Your task to perform on an android device: Search for coffee table on Crate & Barrel Image 0: 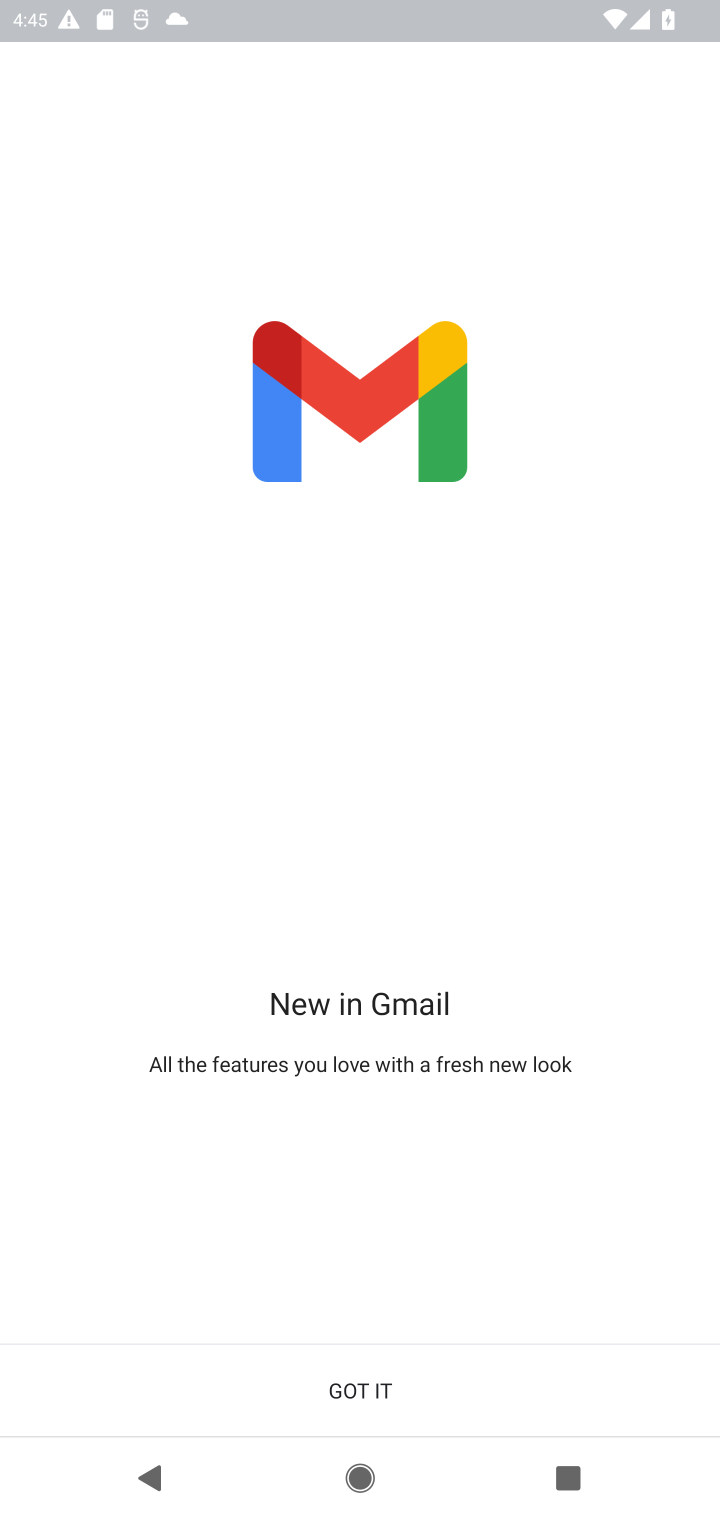
Step 0: press home button
Your task to perform on an android device: Search for coffee table on Crate & Barrel Image 1: 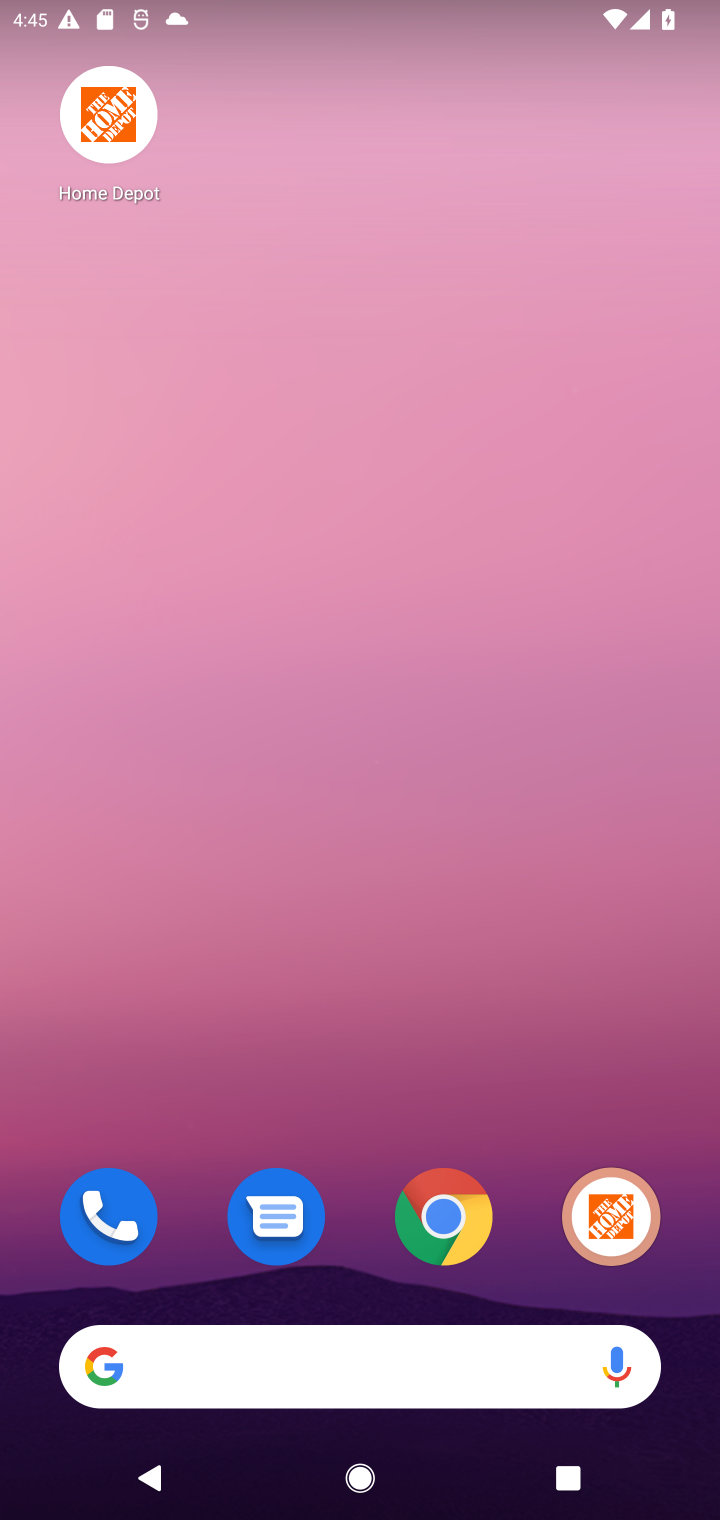
Step 1: click (102, 1361)
Your task to perform on an android device: Search for coffee table on Crate & Barrel Image 2: 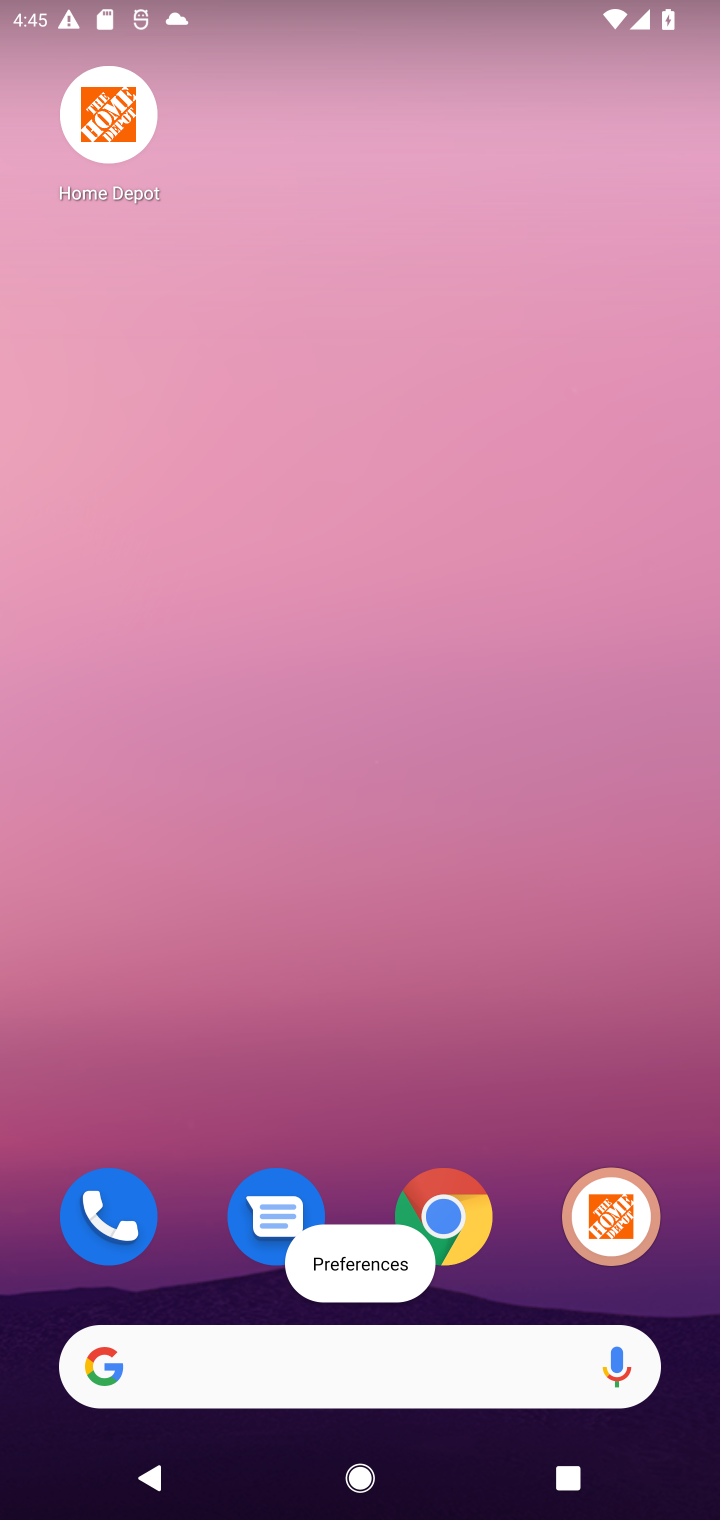
Step 2: click (102, 1361)
Your task to perform on an android device: Search for coffee table on Crate & Barrel Image 3: 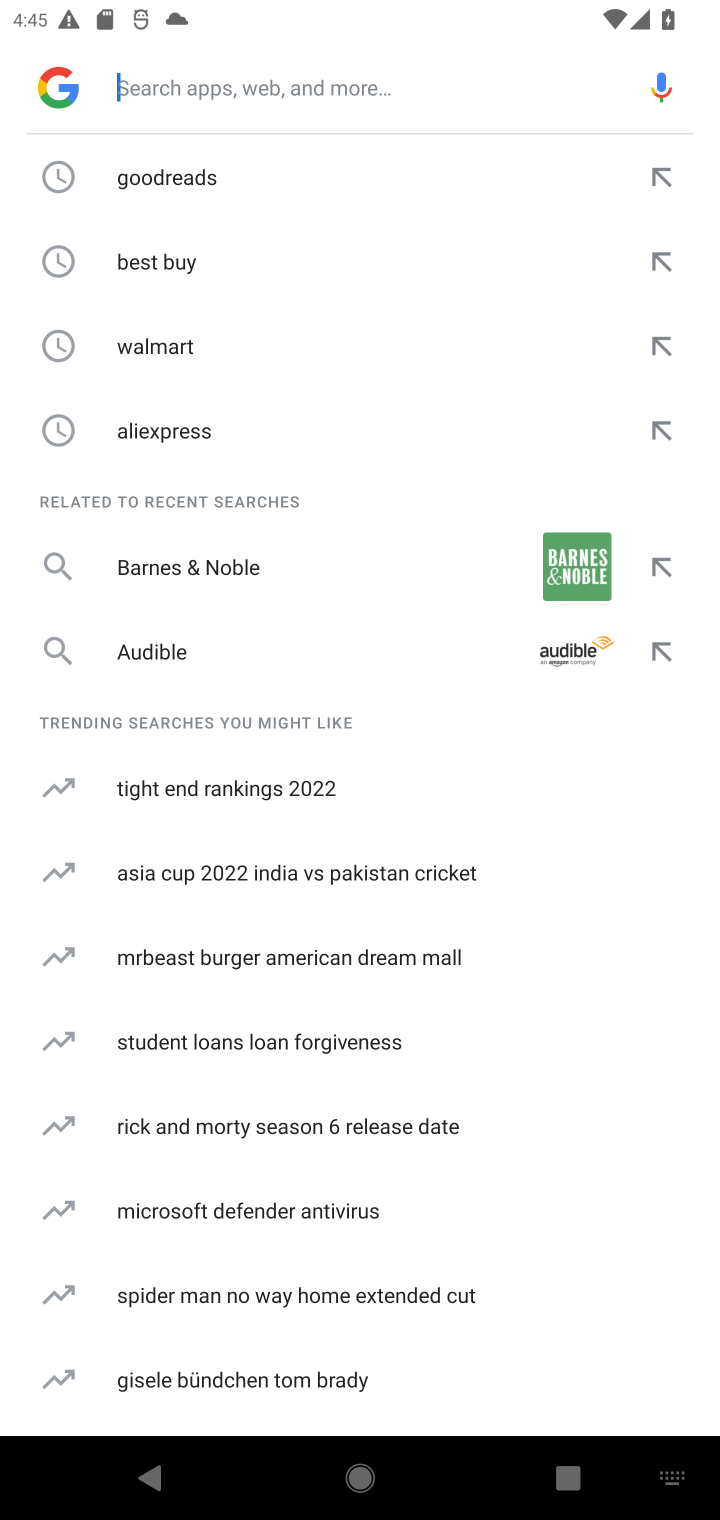
Step 3: type "Crate & Barrel"
Your task to perform on an android device: Search for coffee table on Crate & Barrel Image 4: 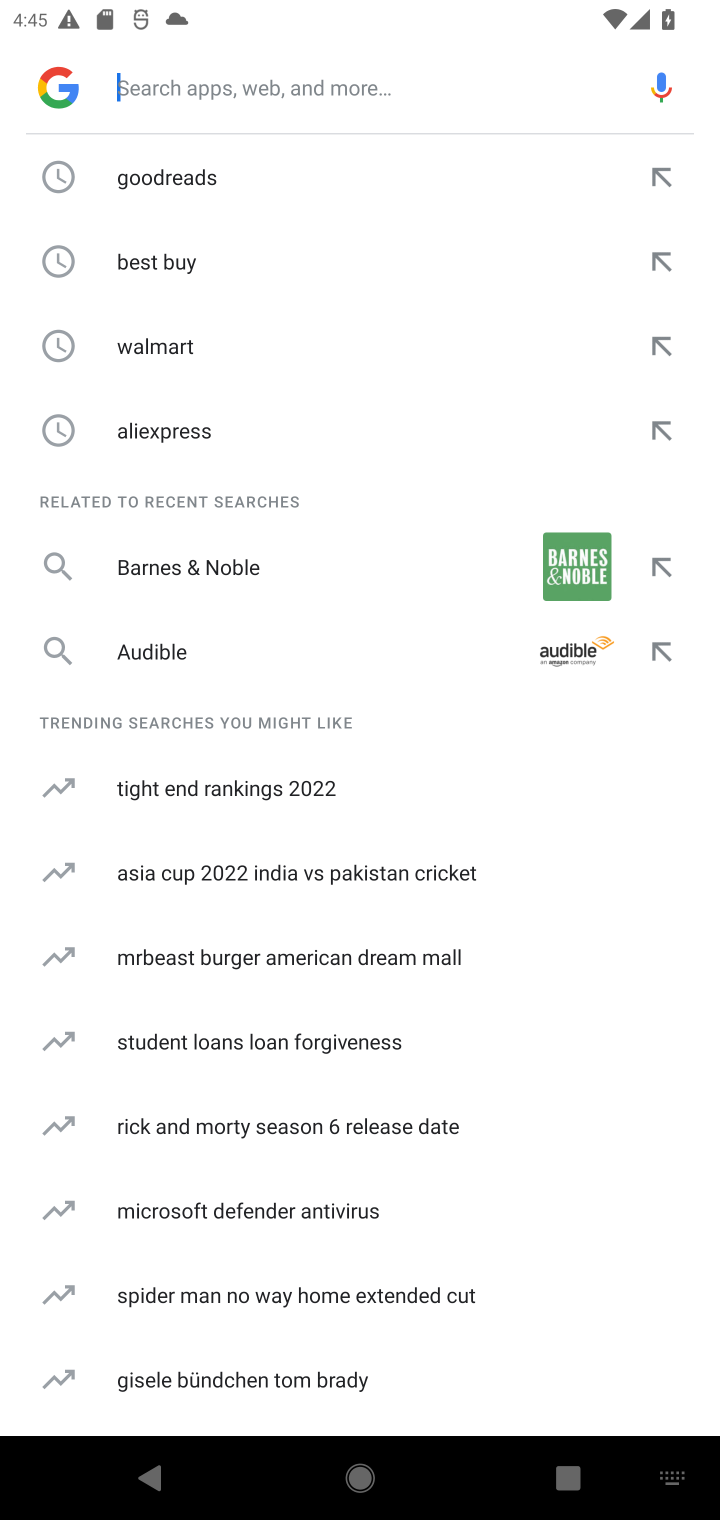
Step 4: click (189, 93)
Your task to perform on an android device: Search for coffee table on Crate & Barrel Image 5: 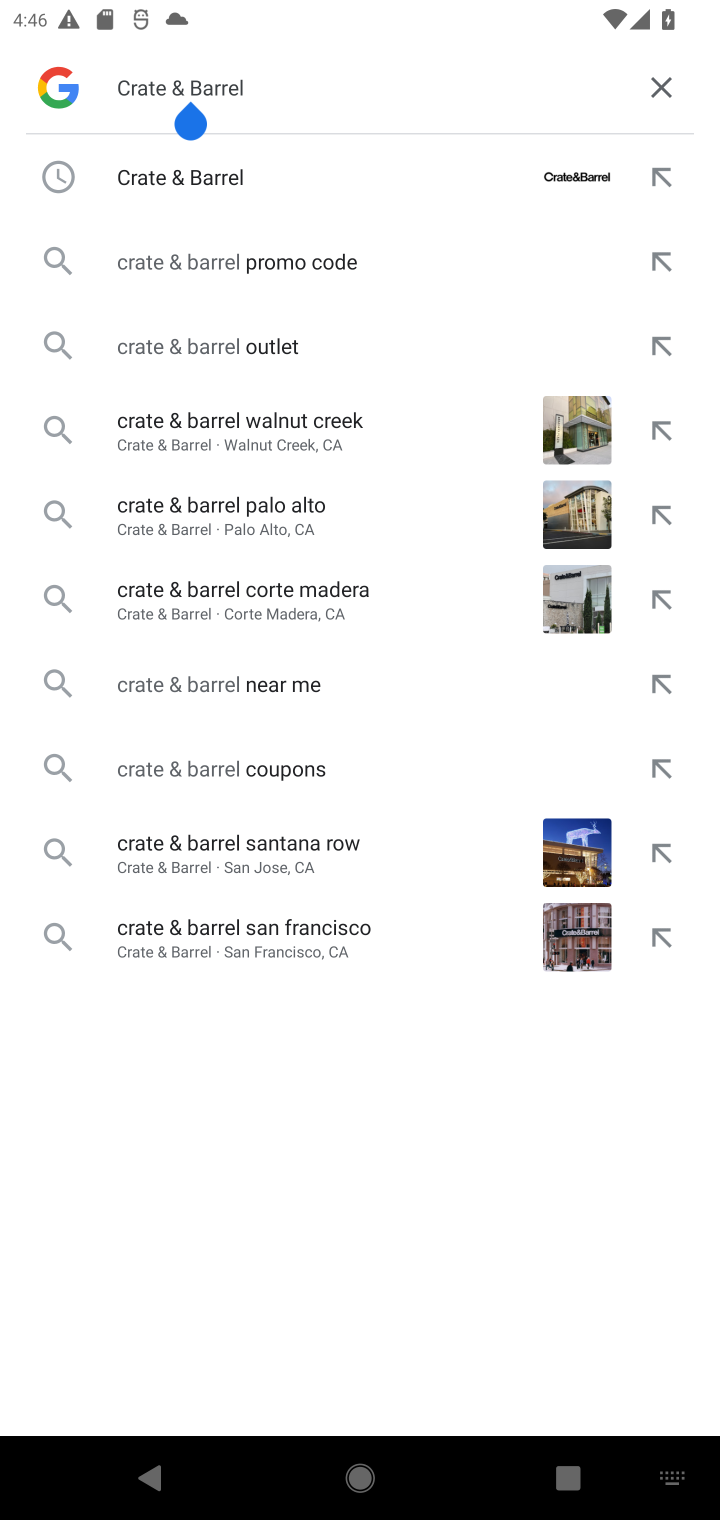
Step 5: click (150, 176)
Your task to perform on an android device: Search for coffee table on Crate & Barrel Image 6: 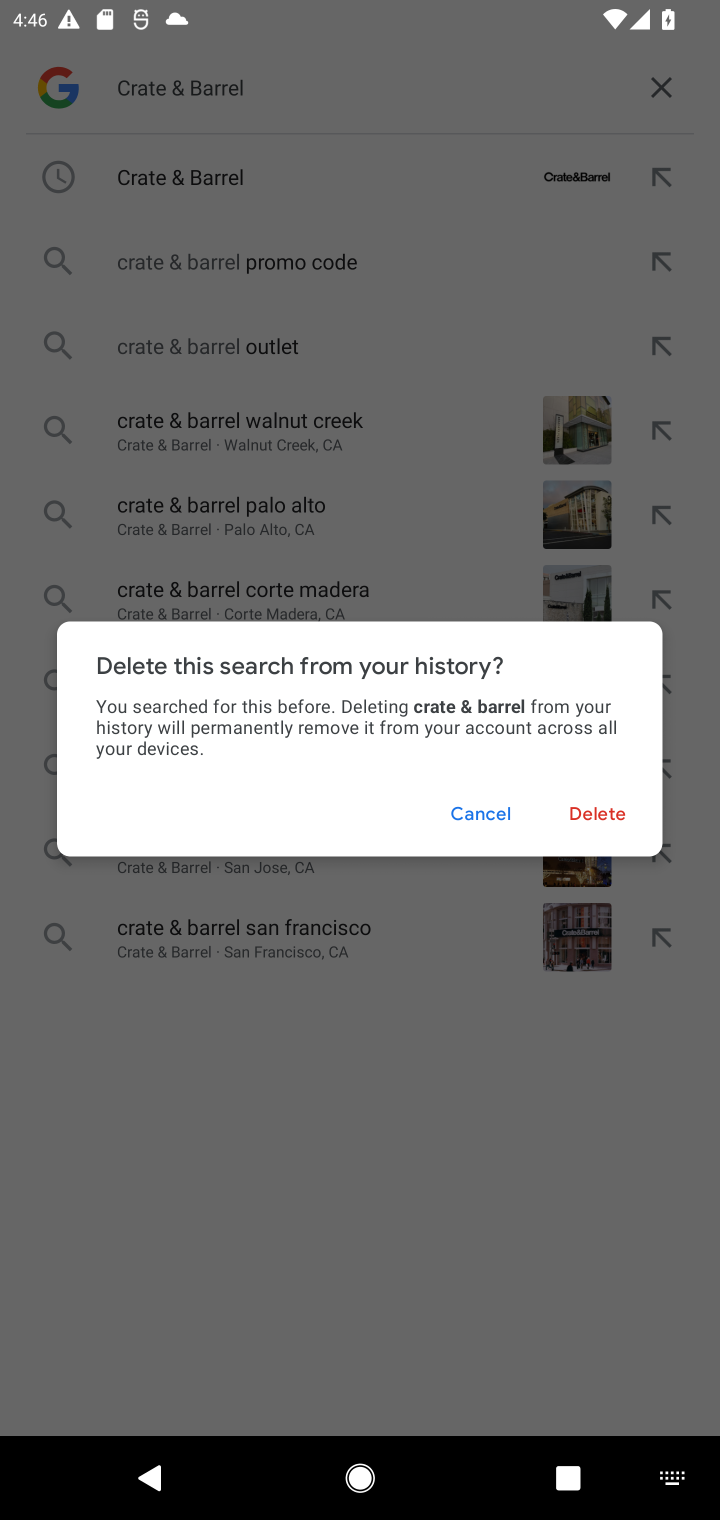
Step 6: click (499, 812)
Your task to perform on an android device: Search for coffee table on Crate & Barrel Image 7: 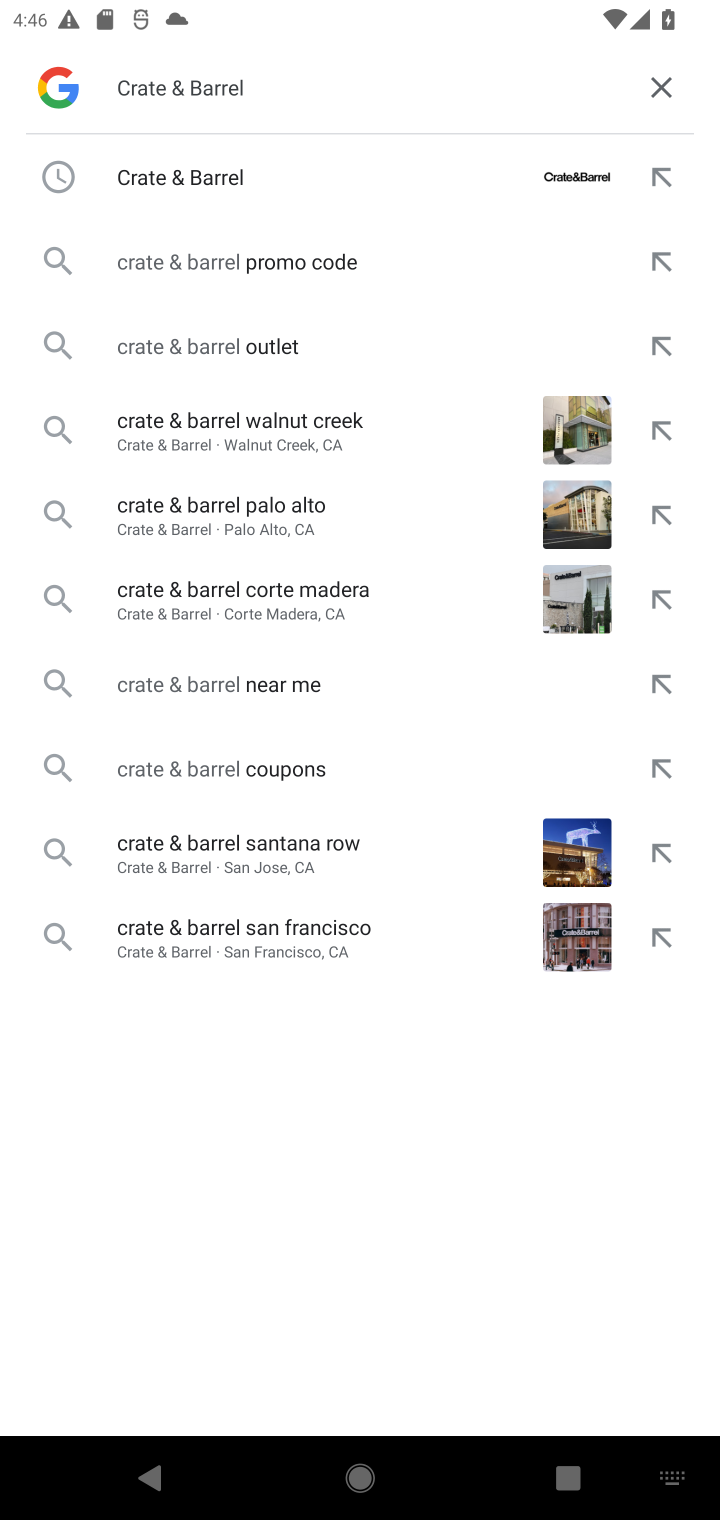
Step 7: press enter
Your task to perform on an android device: Search for coffee table on Crate & Barrel Image 8: 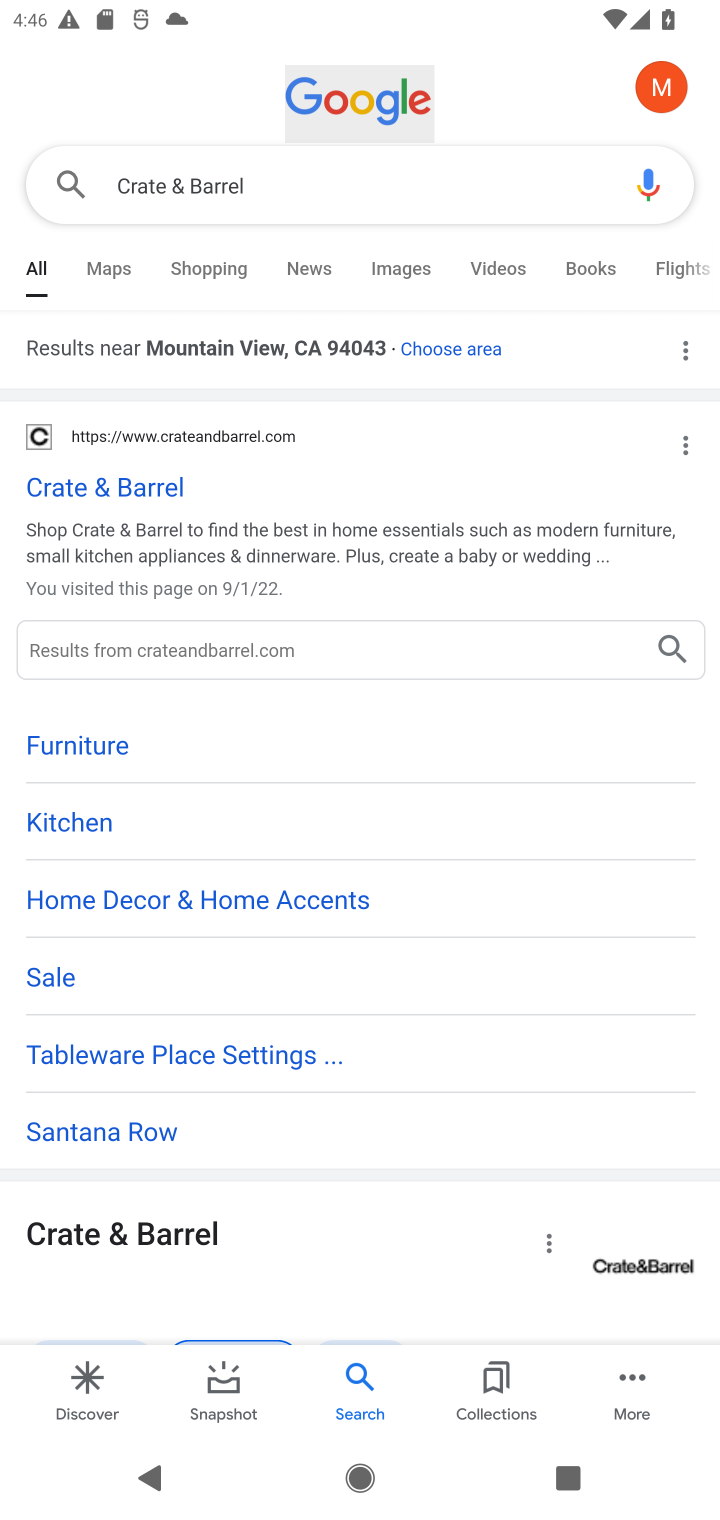
Step 8: click (119, 491)
Your task to perform on an android device: Search for coffee table on Crate & Barrel Image 9: 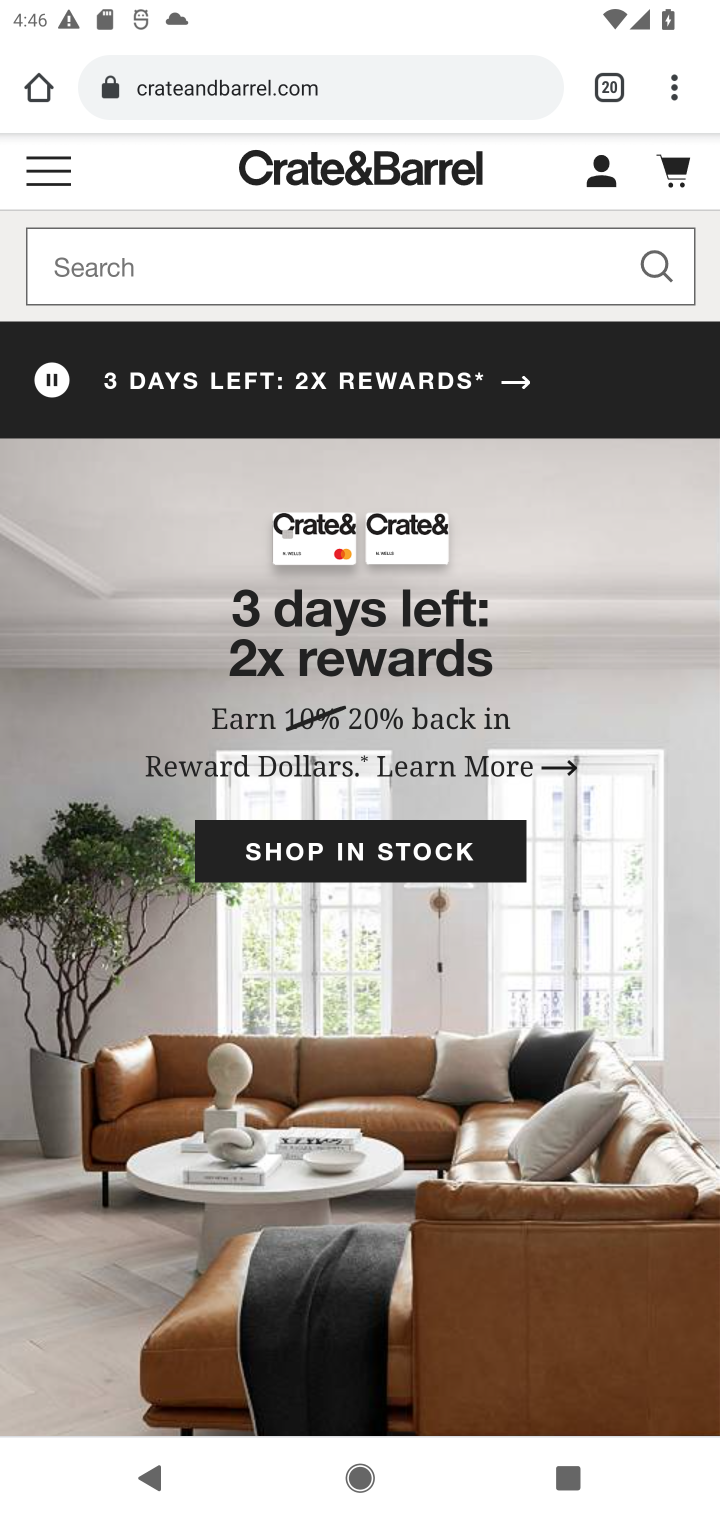
Step 9: click (169, 284)
Your task to perform on an android device: Search for coffee table on Crate & Barrel Image 10: 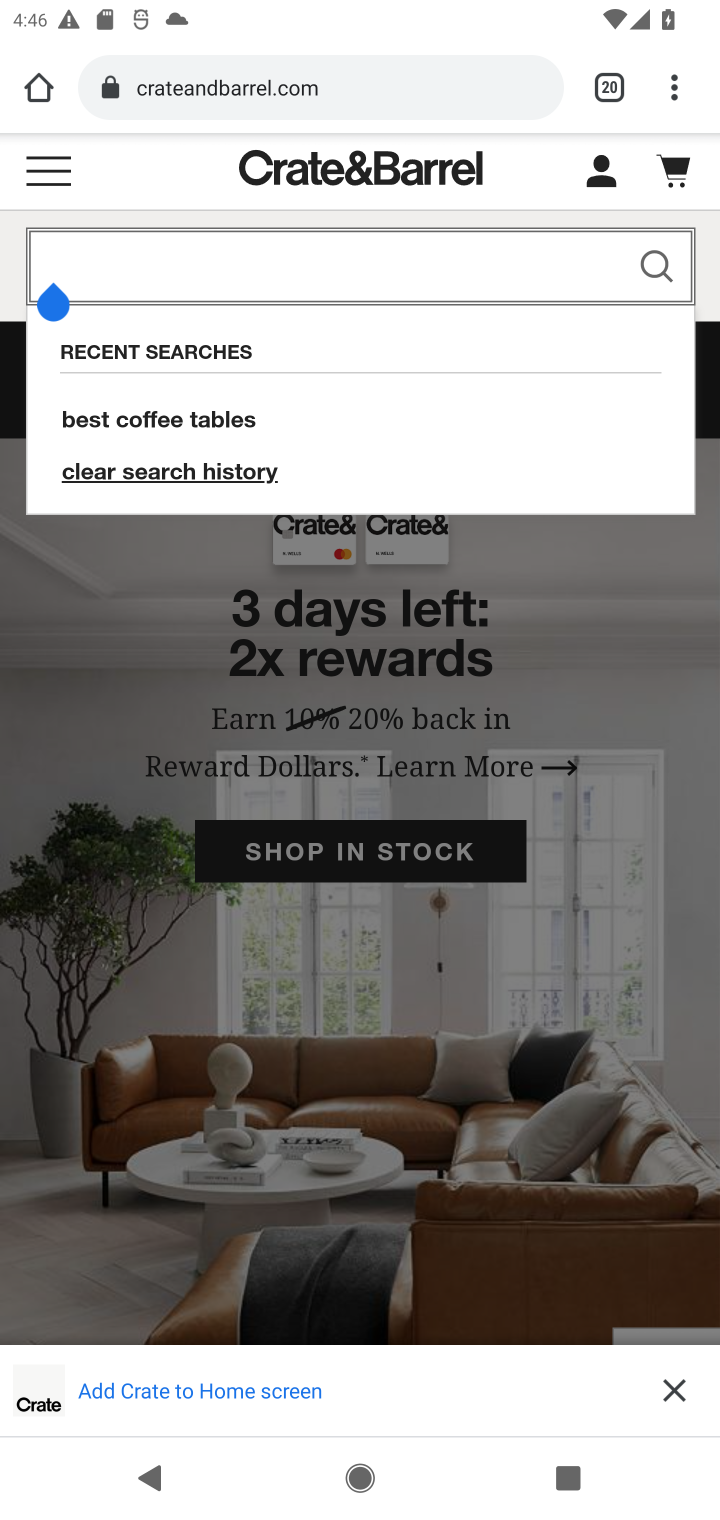
Step 10: type "coffee table"
Your task to perform on an android device: Search for coffee table on Crate & Barrel Image 11: 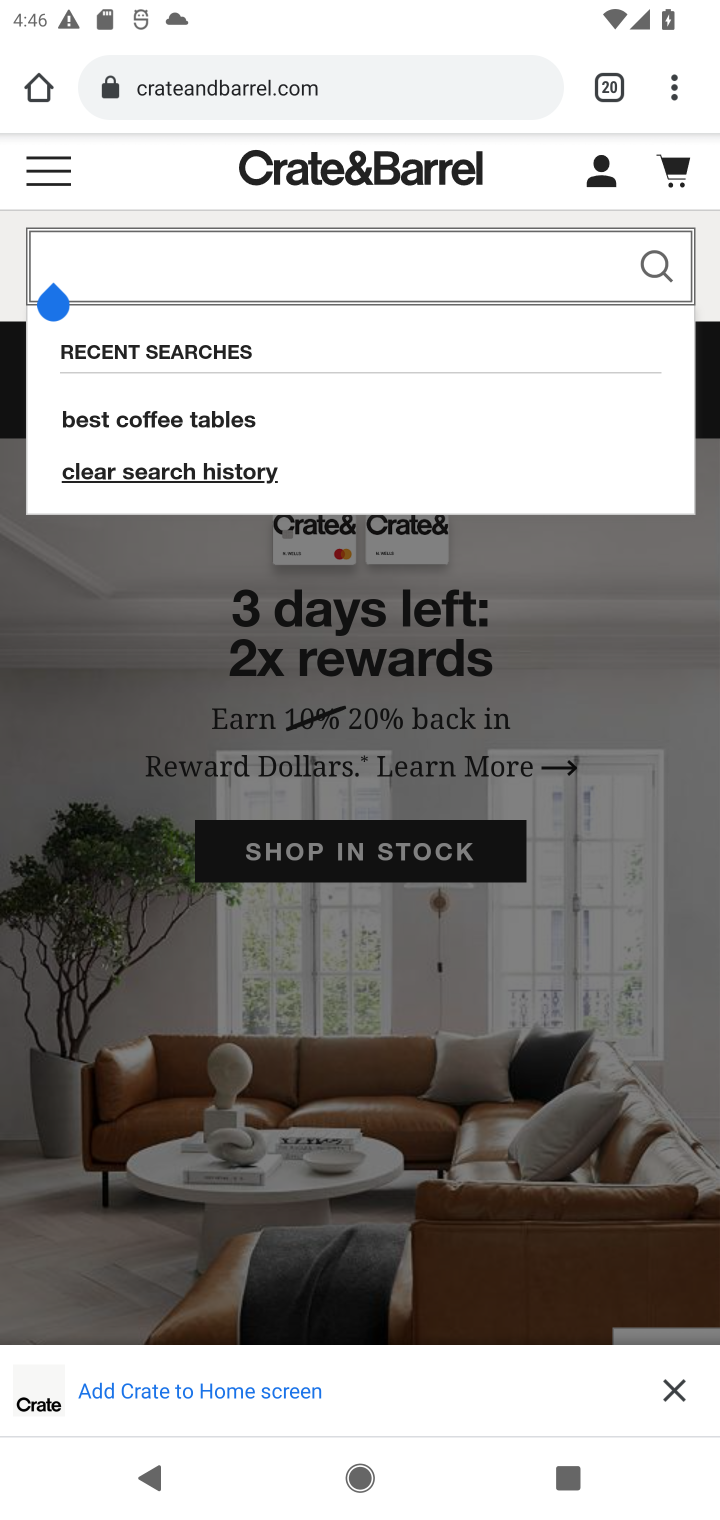
Step 11: click (134, 258)
Your task to perform on an android device: Search for coffee table on Crate & Barrel Image 12: 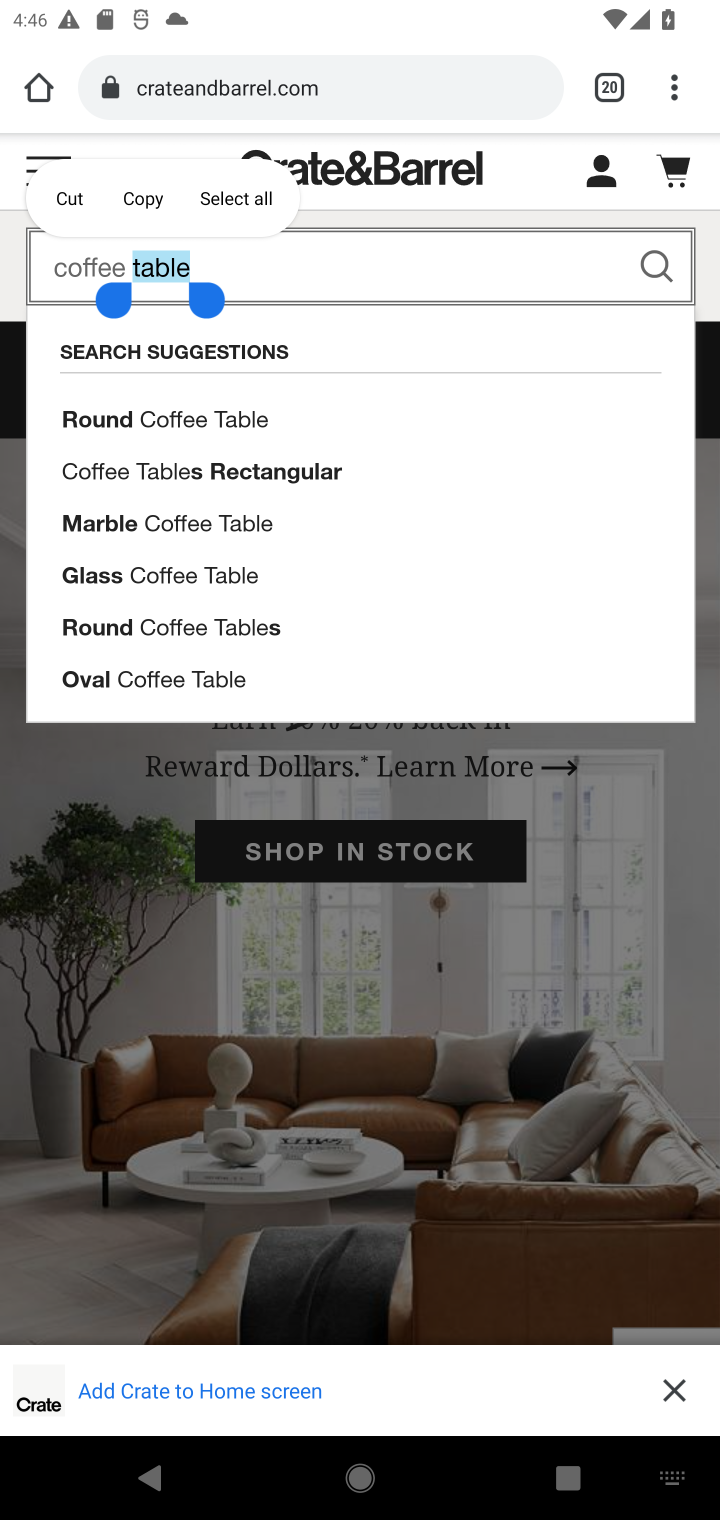
Step 12: press enter
Your task to perform on an android device: Search for coffee table on Crate & Barrel Image 13: 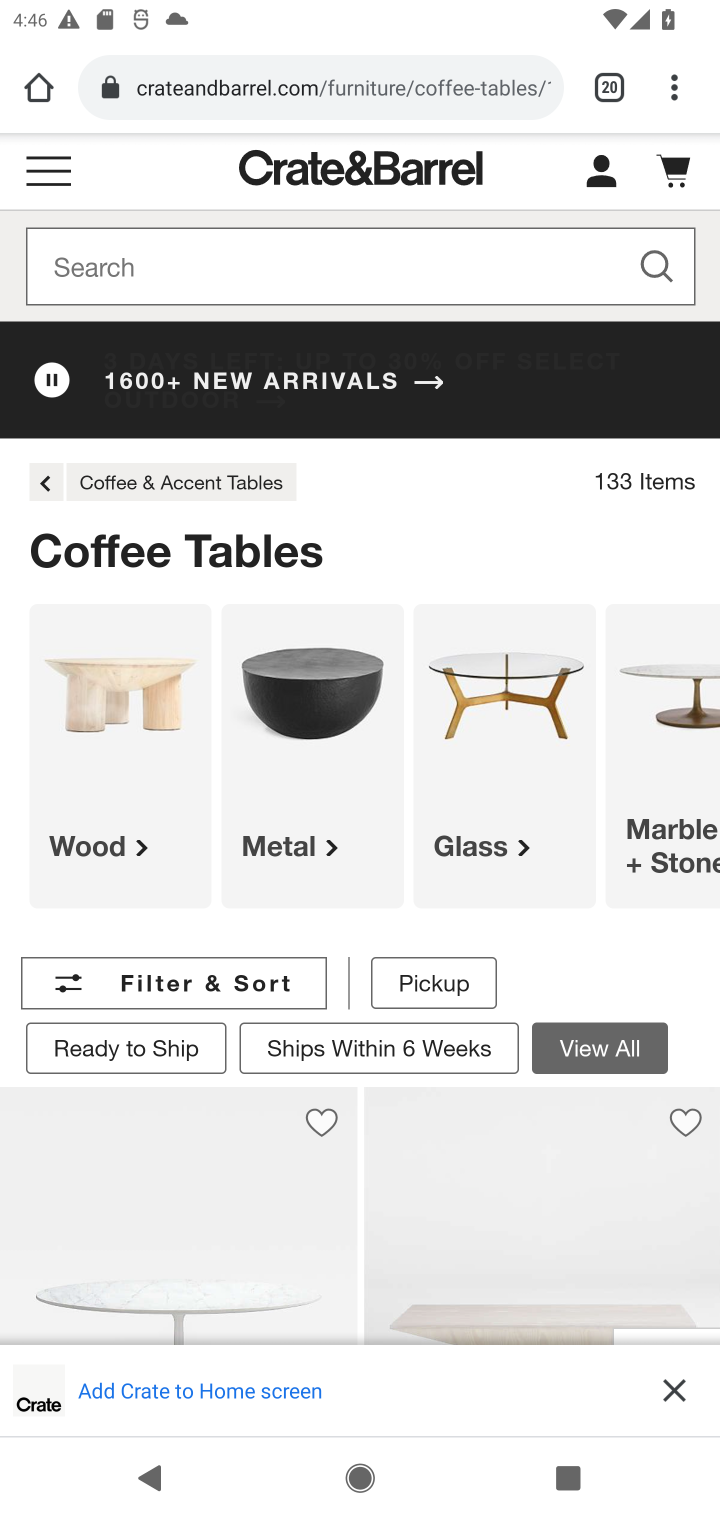
Step 13: task complete